Your task to perform on an android device: check storage Image 0: 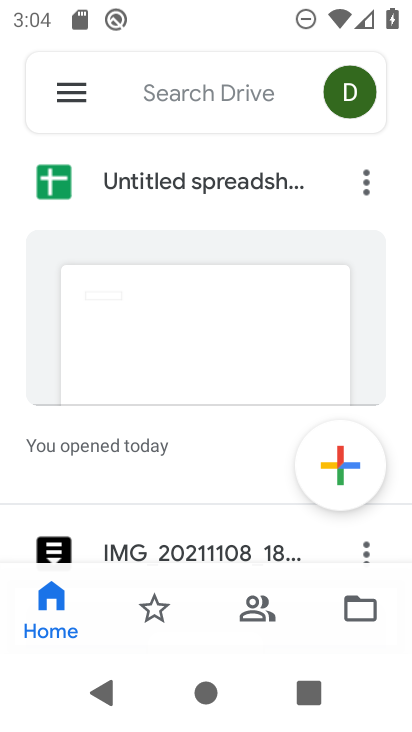
Step 0: press home button
Your task to perform on an android device: check storage Image 1: 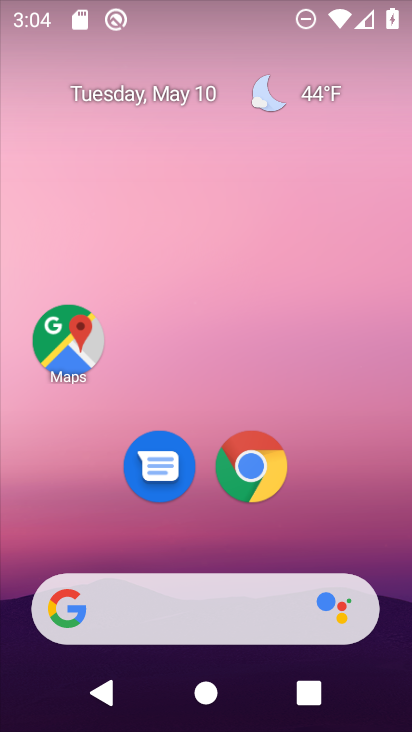
Step 1: drag from (276, 535) to (322, 15)
Your task to perform on an android device: check storage Image 2: 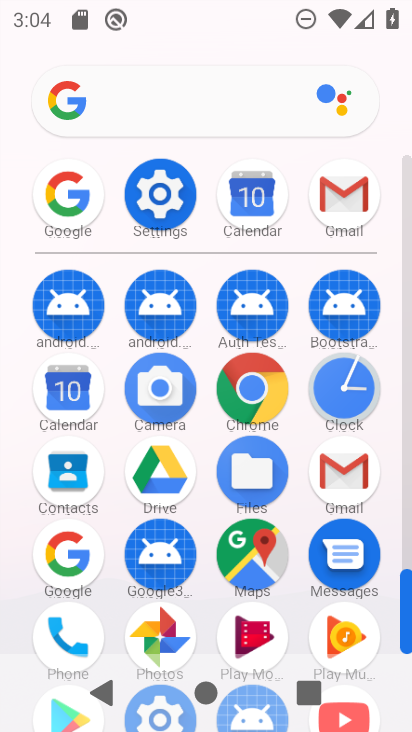
Step 2: click (142, 201)
Your task to perform on an android device: check storage Image 3: 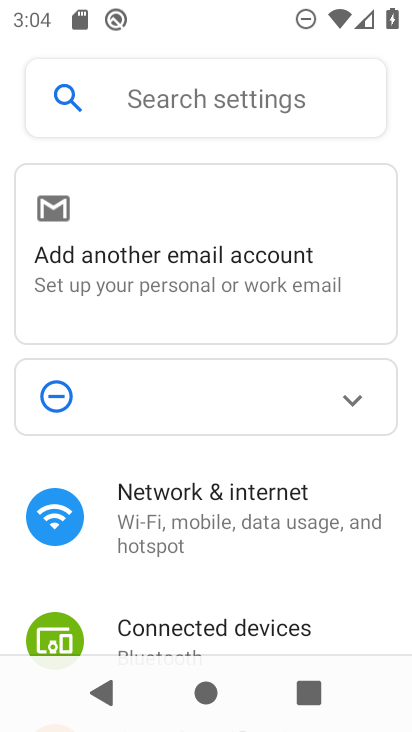
Step 3: drag from (184, 557) to (267, 149)
Your task to perform on an android device: check storage Image 4: 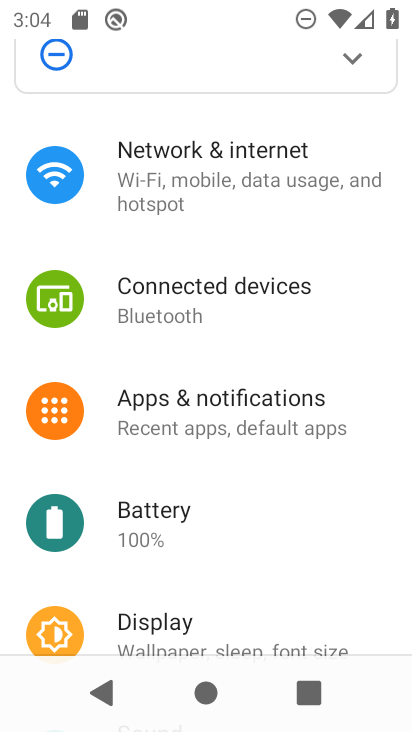
Step 4: drag from (244, 533) to (321, 184)
Your task to perform on an android device: check storage Image 5: 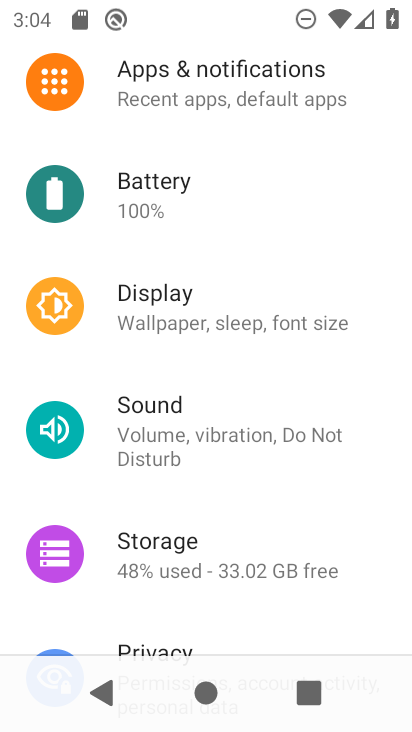
Step 5: click (225, 556)
Your task to perform on an android device: check storage Image 6: 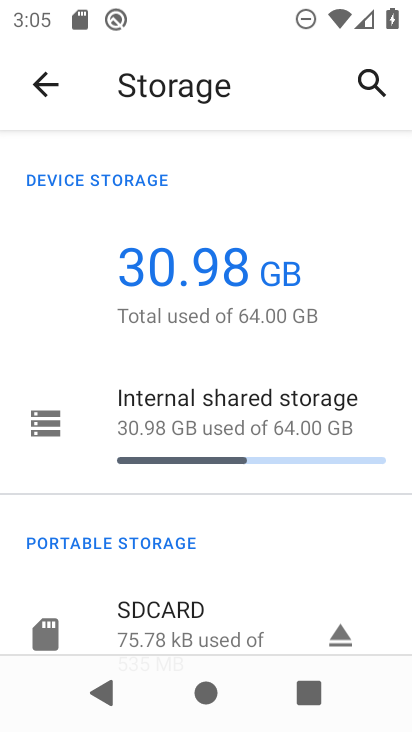
Step 6: task complete